Your task to perform on an android device: Search for vegetarian restaurants on Maps Image 0: 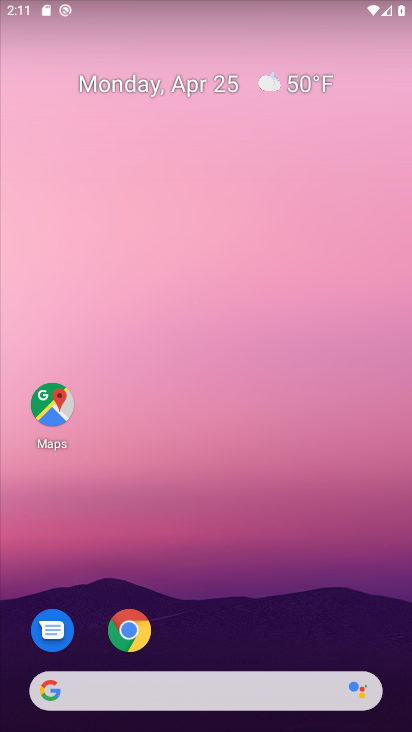
Step 0: click (59, 415)
Your task to perform on an android device: Search for vegetarian restaurants on Maps Image 1: 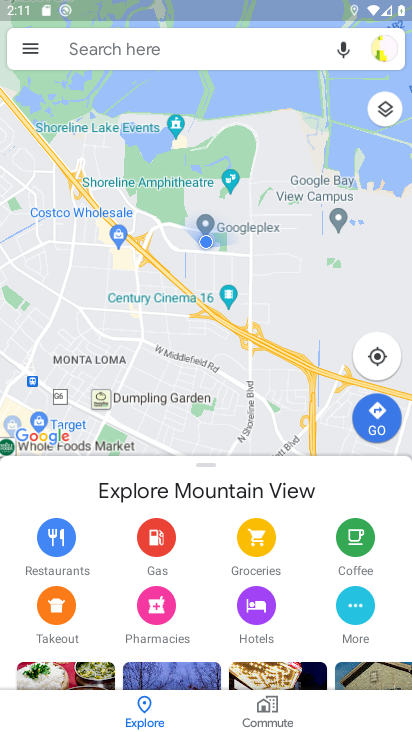
Step 1: click (164, 39)
Your task to perform on an android device: Search for vegetarian restaurants on Maps Image 2: 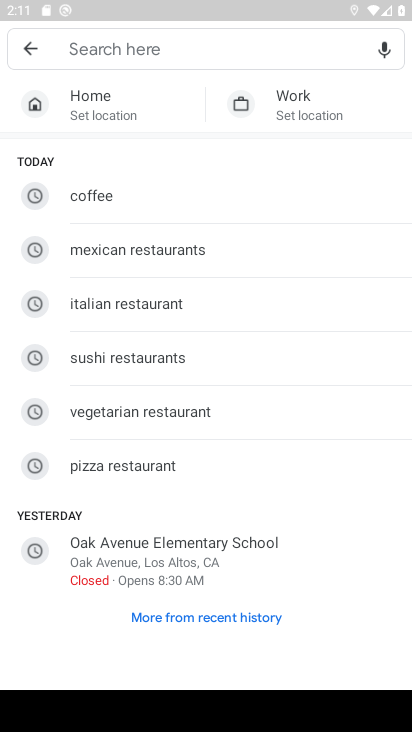
Step 2: click (124, 414)
Your task to perform on an android device: Search for vegetarian restaurants on Maps Image 3: 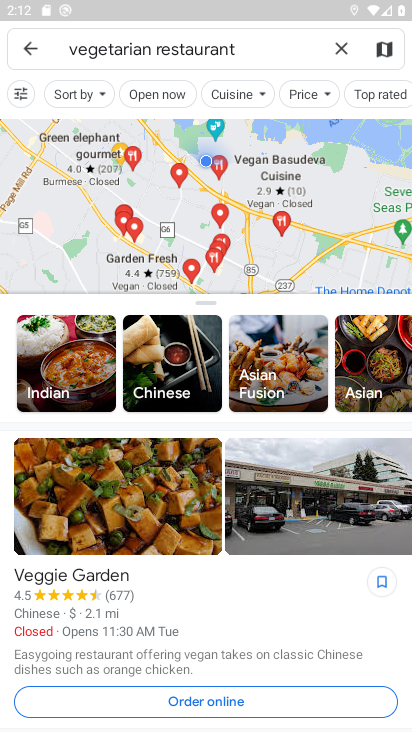
Step 3: task complete